Your task to perform on an android device: turn off improve location accuracy Image 0: 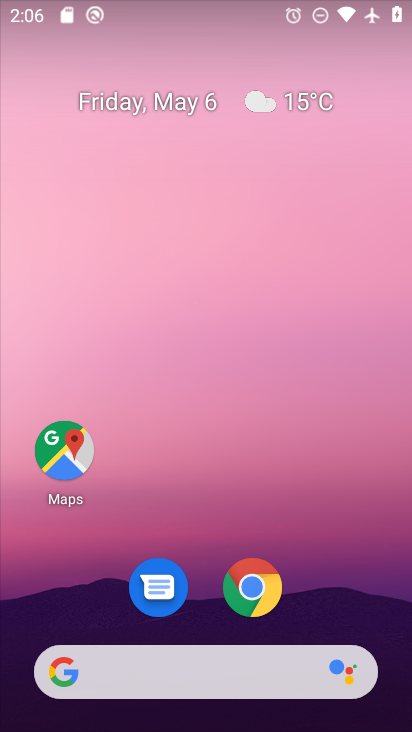
Step 0: drag from (319, 254) to (254, 72)
Your task to perform on an android device: turn off improve location accuracy Image 1: 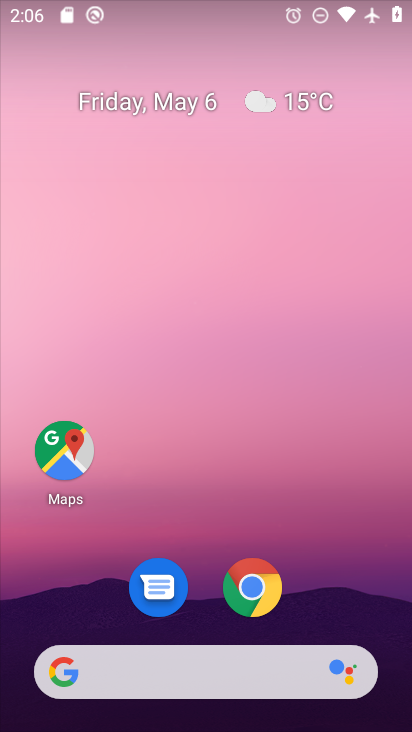
Step 1: drag from (321, 537) to (221, 1)
Your task to perform on an android device: turn off improve location accuracy Image 2: 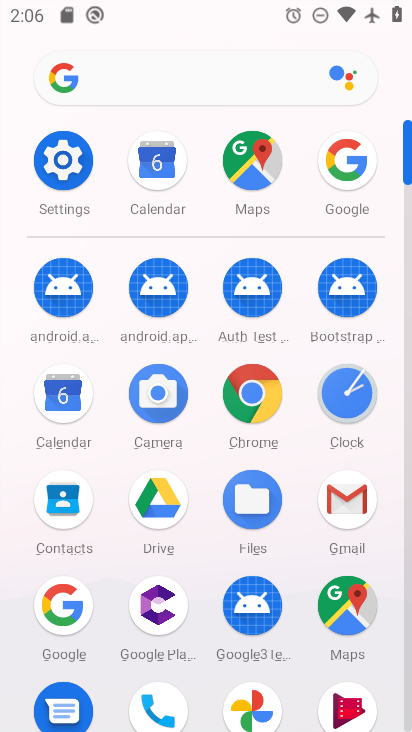
Step 2: click (60, 167)
Your task to perform on an android device: turn off improve location accuracy Image 3: 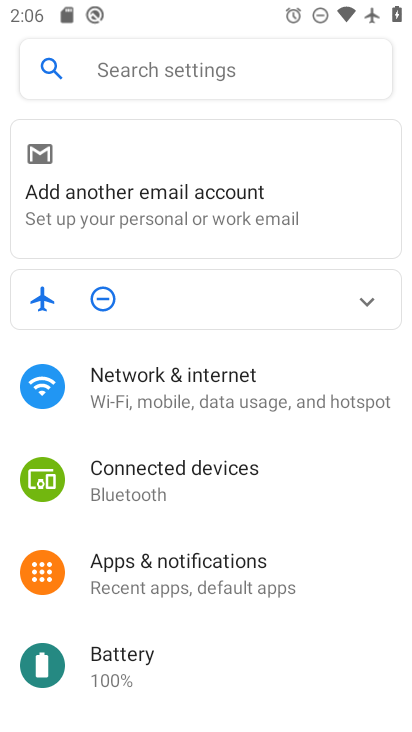
Step 3: drag from (191, 657) to (200, 212)
Your task to perform on an android device: turn off improve location accuracy Image 4: 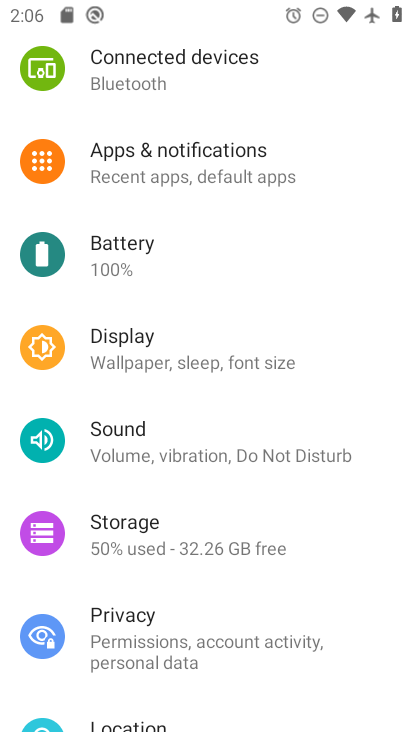
Step 4: click (185, 716)
Your task to perform on an android device: turn off improve location accuracy Image 5: 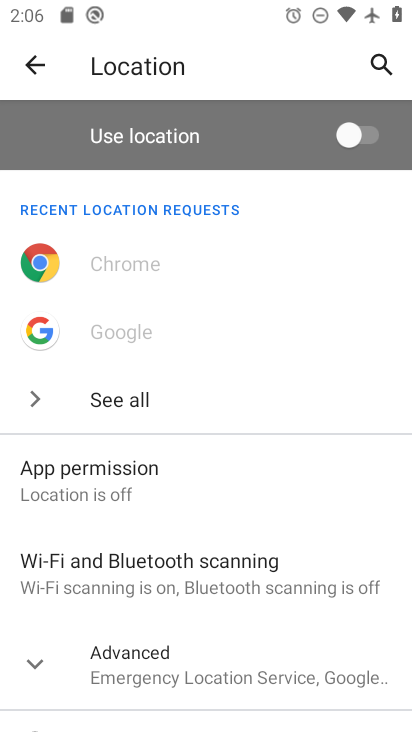
Step 5: click (200, 670)
Your task to perform on an android device: turn off improve location accuracy Image 6: 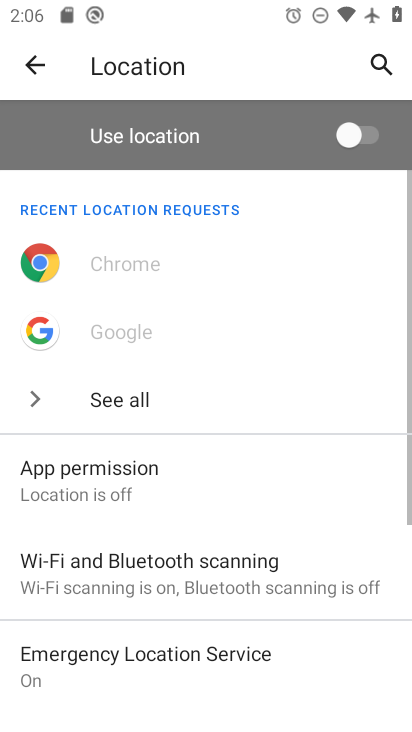
Step 6: drag from (204, 596) to (214, 168)
Your task to perform on an android device: turn off improve location accuracy Image 7: 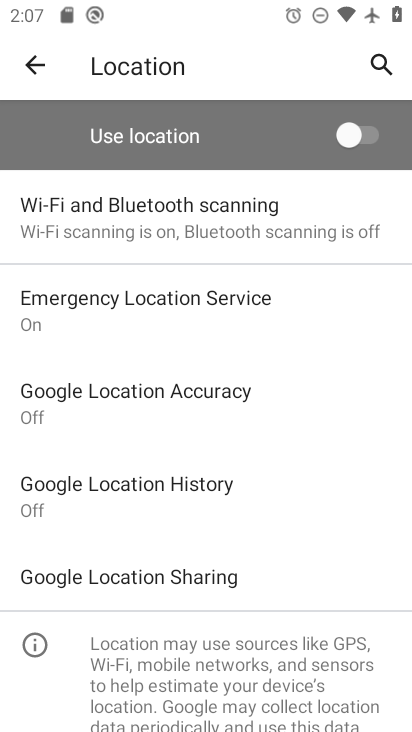
Step 7: click (181, 396)
Your task to perform on an android device: turn off improve location accuracy Image 8: 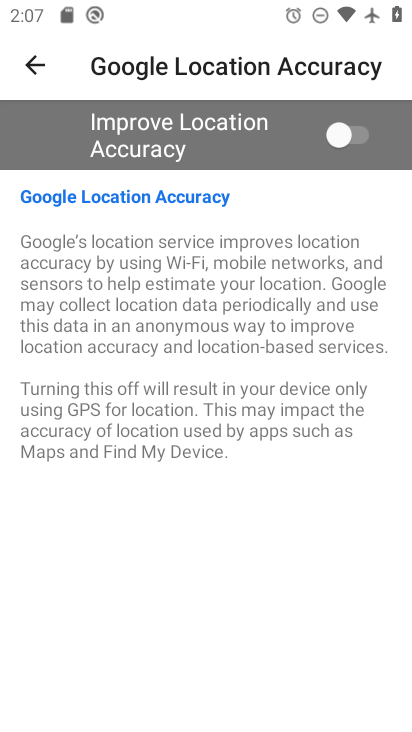
Step 8: task complete